Your task to perform on an android device: Open Reddit.com Image 0: 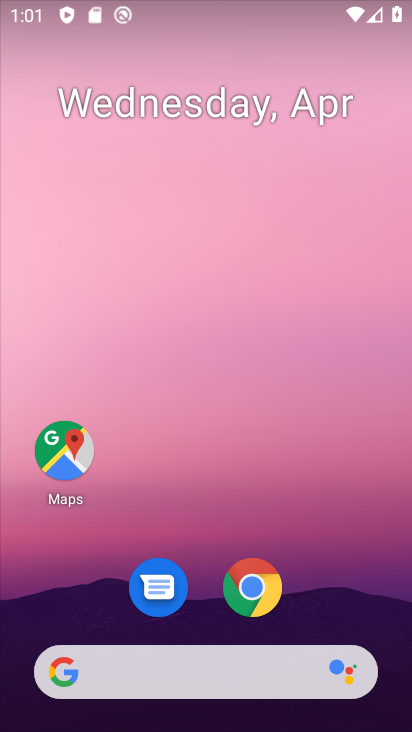
Step 0: click (256, 590)
Your task to perform on an android device: Open Reddit.com Image 1: 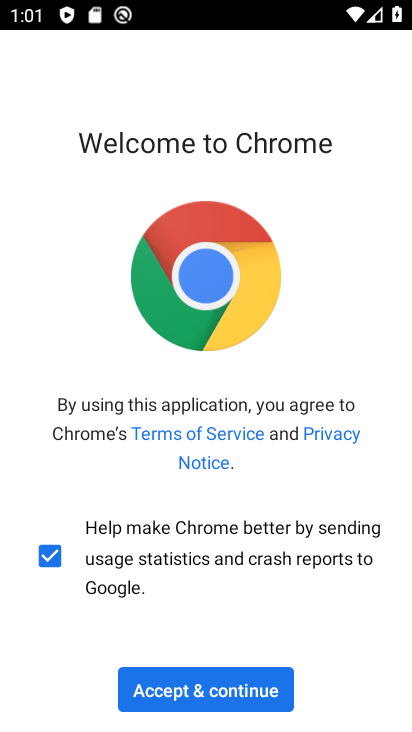
Step 1: click (225, 696)
Your task to perform on an android device: Open Reddit.com Image 2: 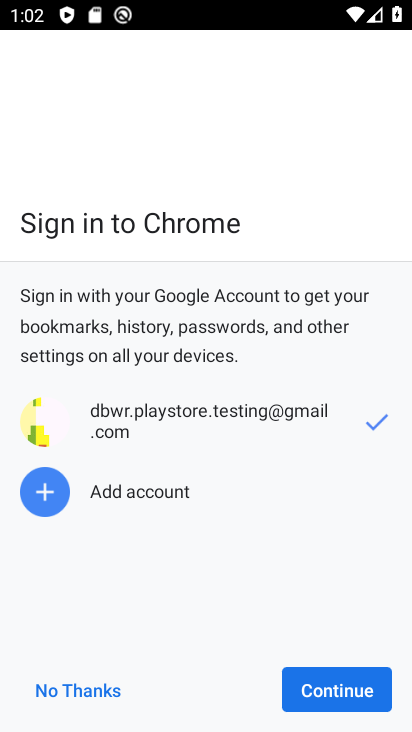
Step 2: click (70, 679)
Your task to perform on an android device: Open Reddit.com Image 3: 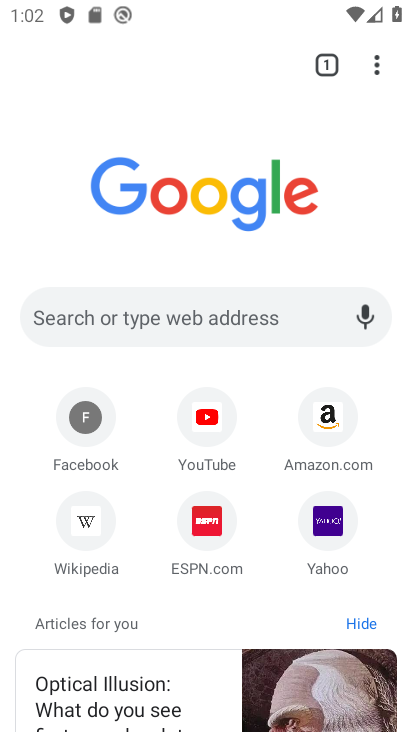
Step 3: click (150, 313)
Your task to perform on an android device: Open Reddit.com Image 4: 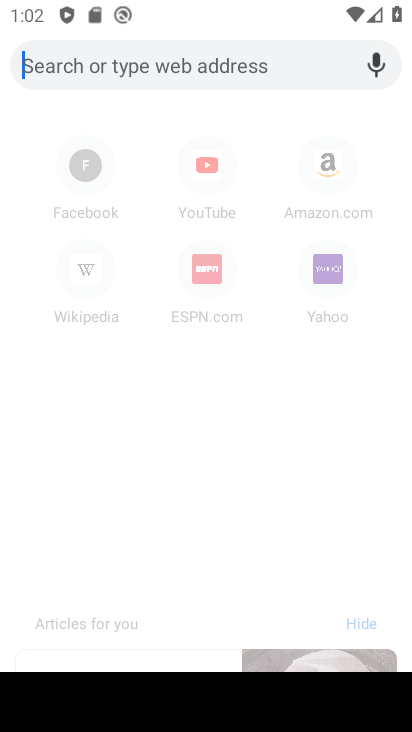
Step 4: type "reddit.com"
Your task to perform on an android device: Open Reddit.com Image 5: 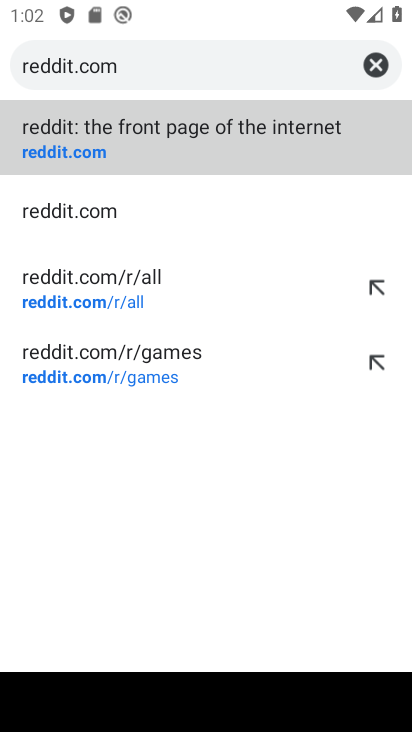
Step 5: click (80, 216)
Your task to perform on an android device: Open Reddit.com Image 6: 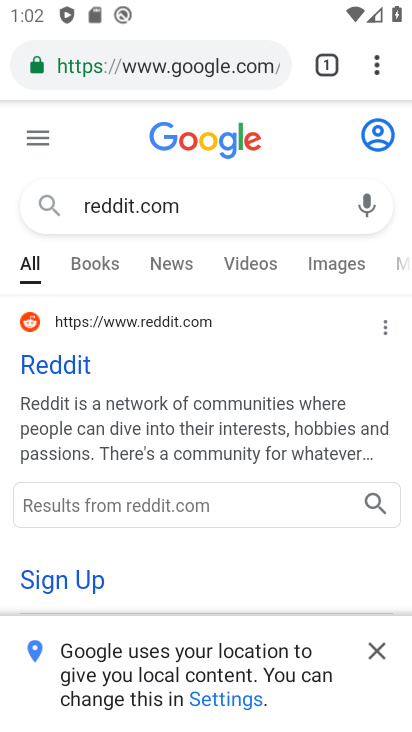
Step 6: click (75, 360)
Your task to perform on an android device: Open Reddit.com Image 7: 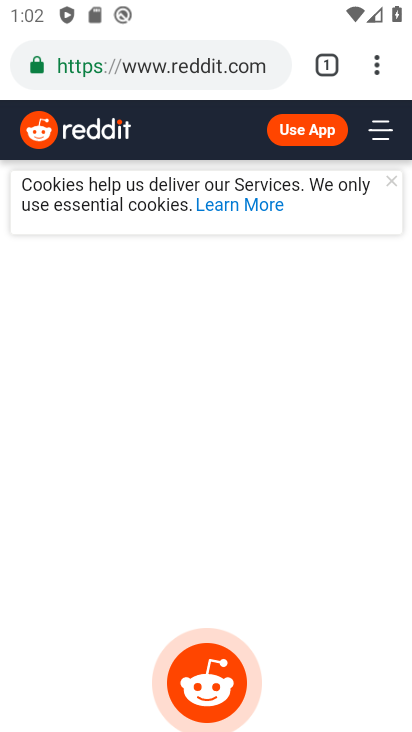
Step 7: task complete